Your task to perform on an android device: check battery use Image 0: 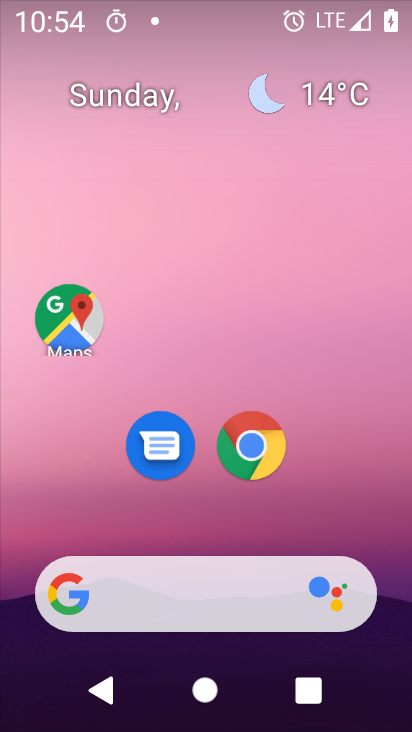
Step 0: drag from (185, 524) to (234, 151)
Your task to perform on an android device: check battery use Image 1: 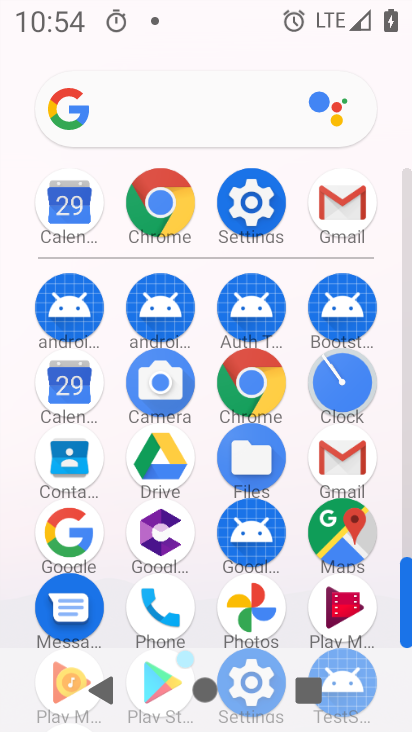
Step 1: click (238, 228)
Your task to perform on an android device: check battery use Image 2: 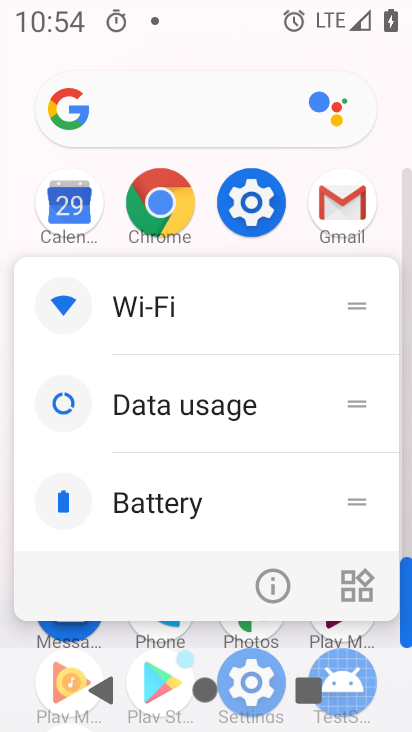
Step 2: click (203, 510)
Your task to perform on an android device: check battery use Image 3: 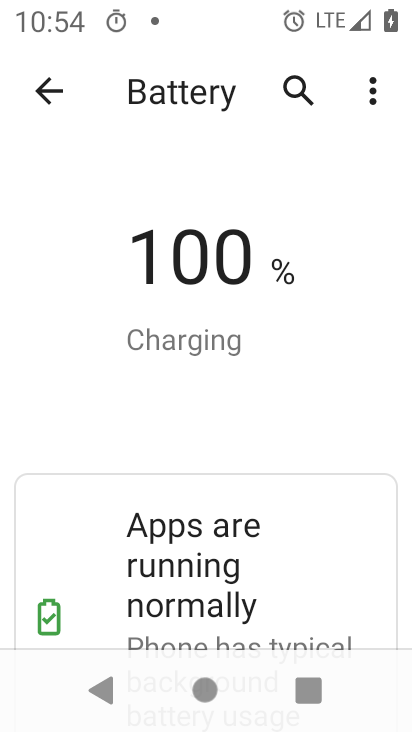
Step 3: click (290, 336)
Your task to perform on an android device: check battery use Image 4: 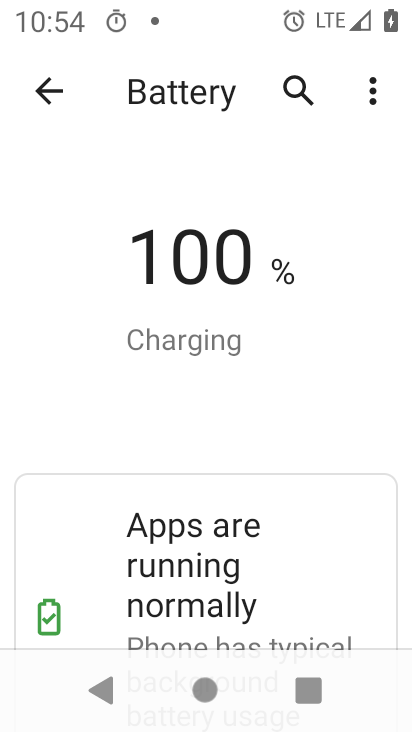
Step 4: drag from (212, 597) to (254, 337)
Your task to perform on an android device: check battery use Image 5: 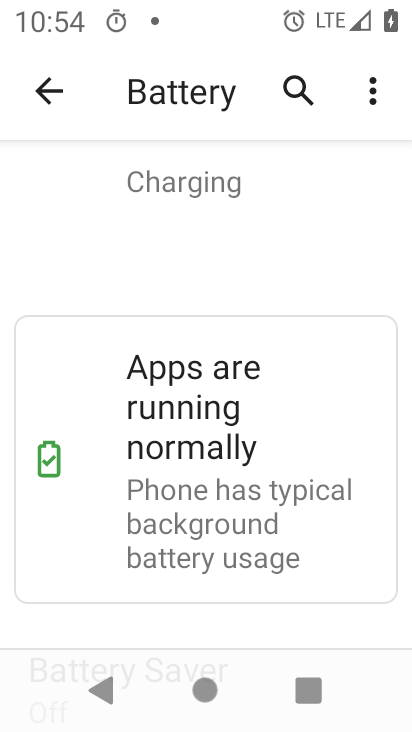
Step 5: drag from (202, 552) to (274, 236)
Your task to perform on an android device: check battery use Image 6: 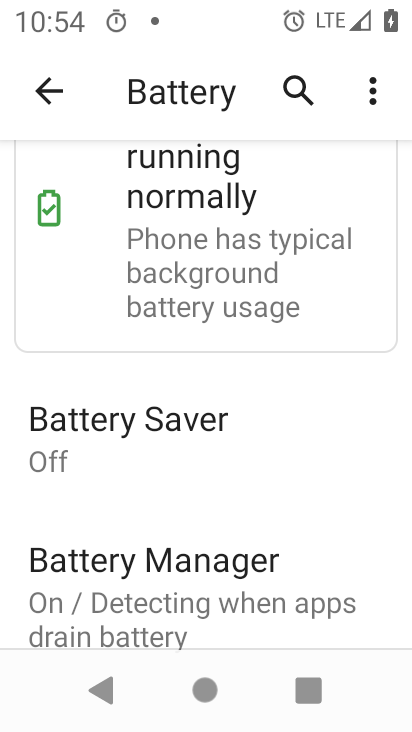
Step 6: drag from (198, 583) to (284, 226)
Your task to perform on an android device: check battery use Image 7: 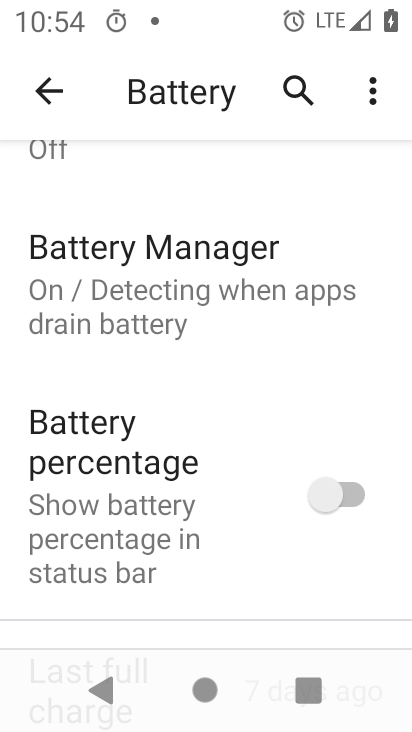
Step 7: click (363, 99)
Your task to perform on an android device: check battery use Image 8: 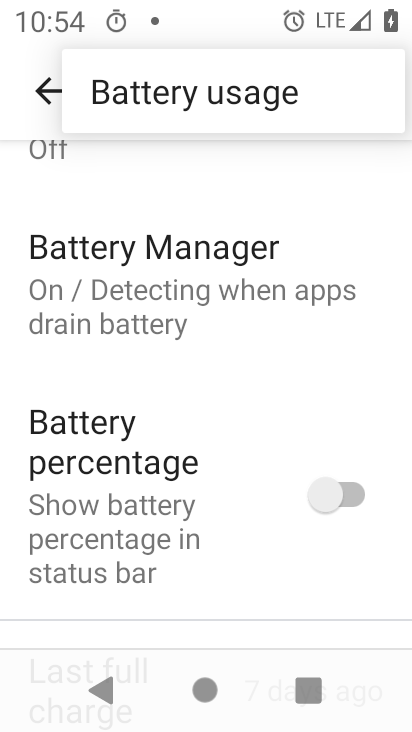
Step 8: click (195, 79)
Your task to perform on an android device: check battery use Image 9: 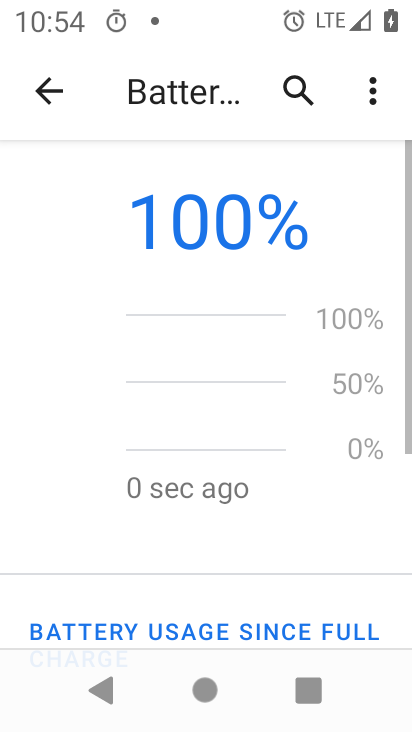
Step 9: task complete